Your task to perform on an android device: turn on sleep mode Image 0: 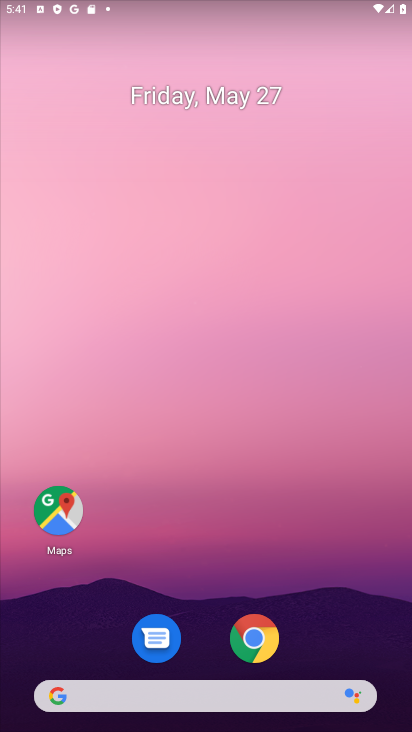
Step 0: drag from (201, 649) to (210, 190)
Your task to perform on an android device: turn on sleep mode Image 1: 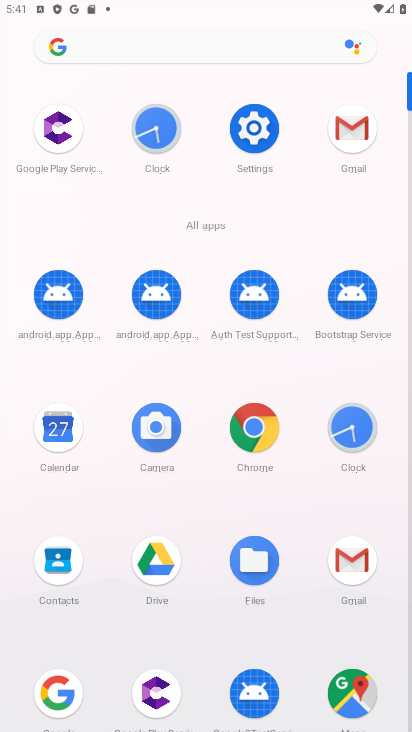
Step 1: click (244, 139)
Your task to perform on an android device: turn on sleep mode Image 2: 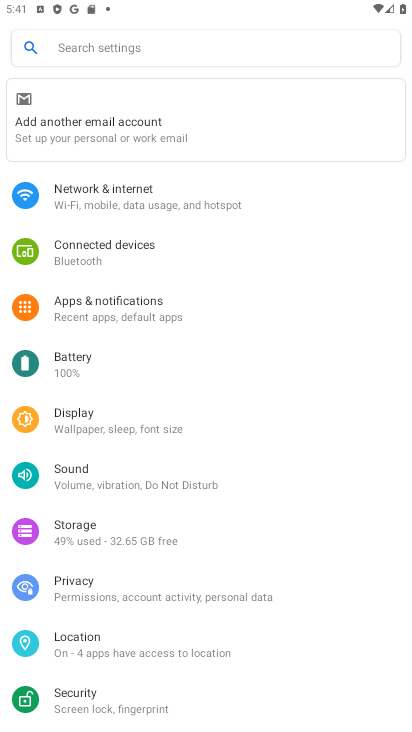
Step 2: task complete